Your task to perform on an android device: Open internet settings Image 0: 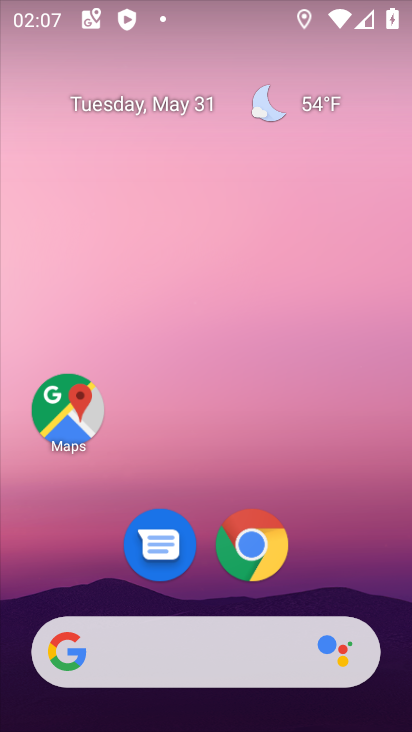
Step 0: drag from (349, 582) to (327, 97)
Your task to perform on an android device: Open internet settings Image 1: 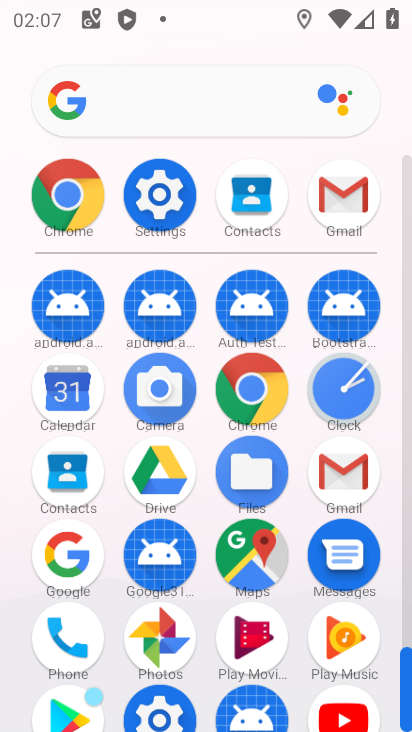
Step 1: click (157, 187)
Your task to perform on an android device: Open internet settings Image 2: 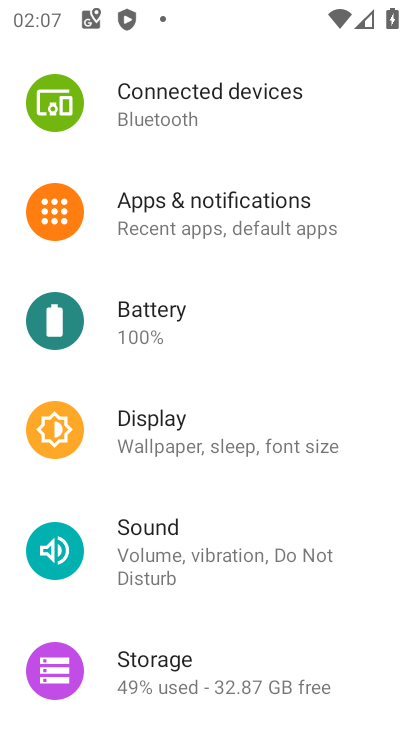
Step 2: drag from (224, 156) to (223, 481)
Your task to perform on an android device: Open internet settings Image 3: 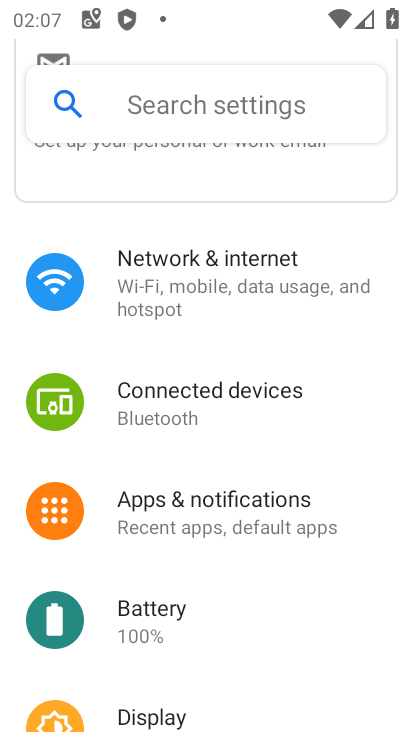
Step 3: click (197, 271)
Your task to perform on an android device: Open internet settings Image 4: 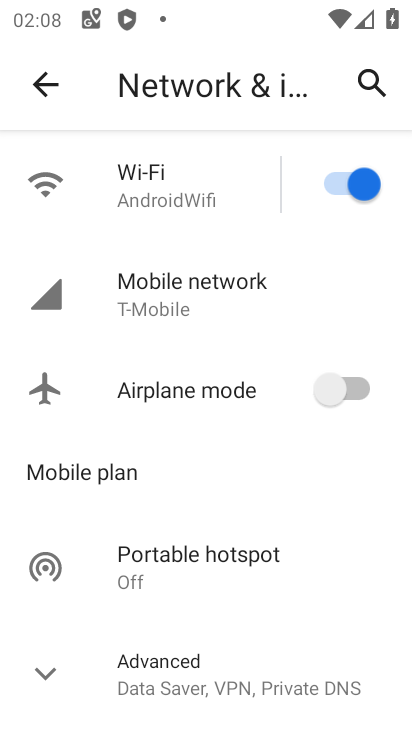
Step 4: task complete